Your task to perform on an android device: change the clock style Image 0: 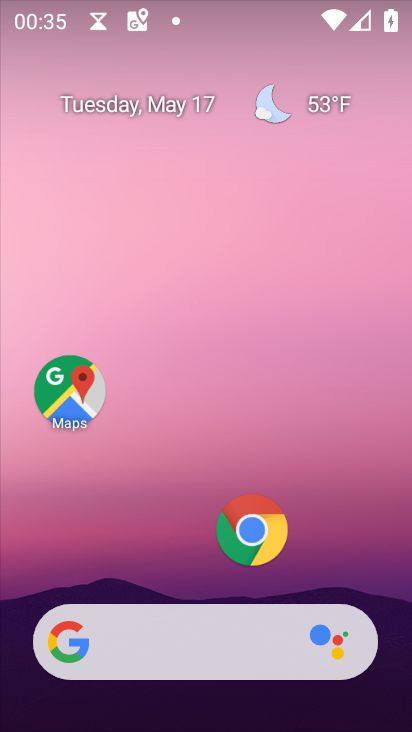
Step 0: click (321, 554)
Your task to perform on an android device: change the clock style Image 1: 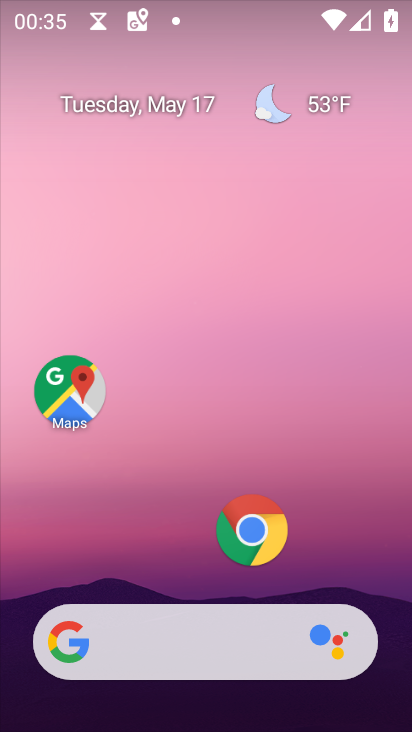
Step 1: drag from (321, 554) to (278, 147)
Your task to perform on an android device: change the clock style Image 2: 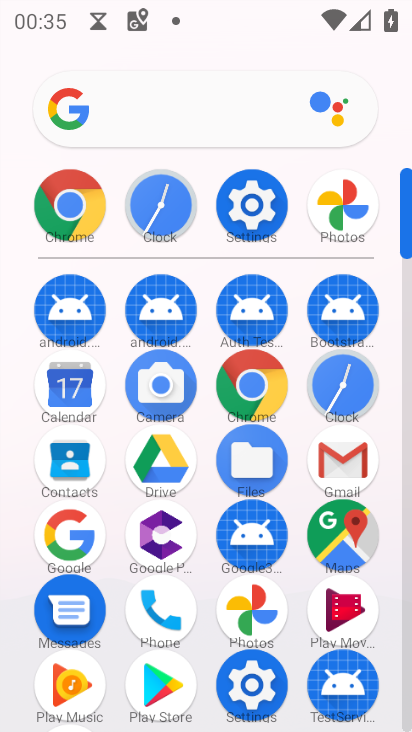
Step 2: click (268, 224)
Your task to perform on an android device: change the clock style Image 3: 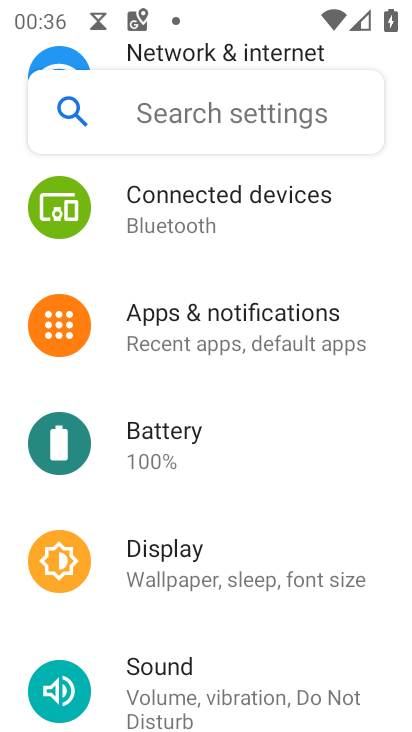
Step 3: click (183, 568)
Your task to perform on an android device: change the clock style Image 4: 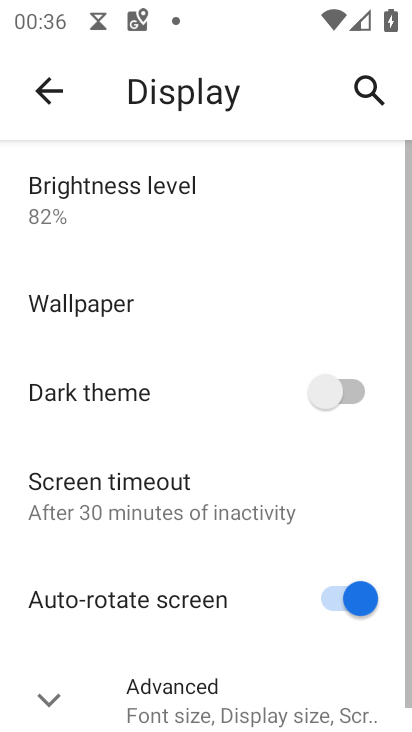
Step 4: drag from (201, 586) to (207, 232)
Your task to perform on an android device: change the clock style Image 5: 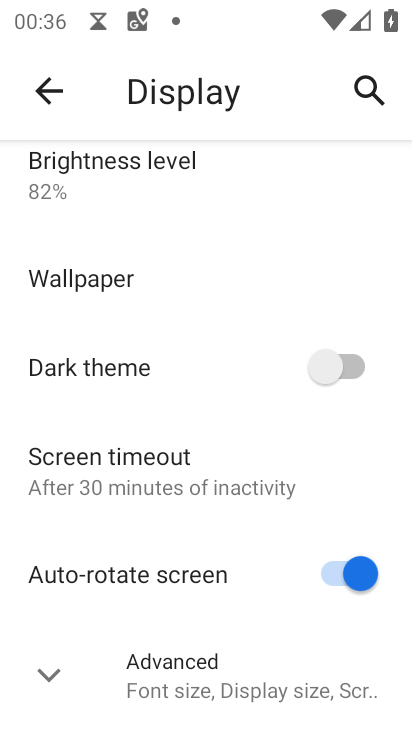
Step 5: click (238, 694)
Your task to perform on an android device: change the clock style Image 6: 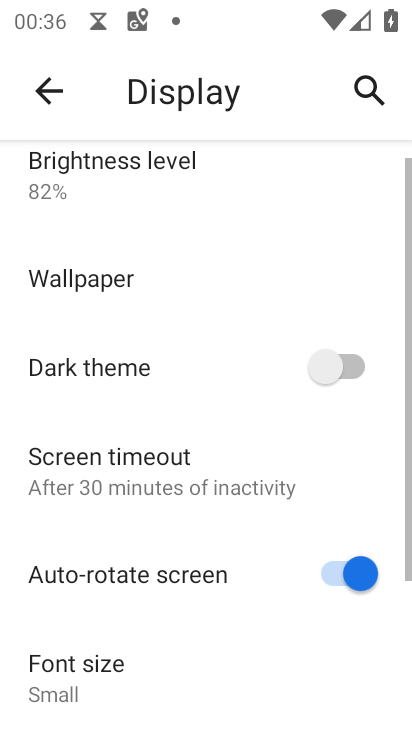
Step 6: drag from (248, 675) to (225, 292)
Your task to perform on an android device: change the clock style Image 7: 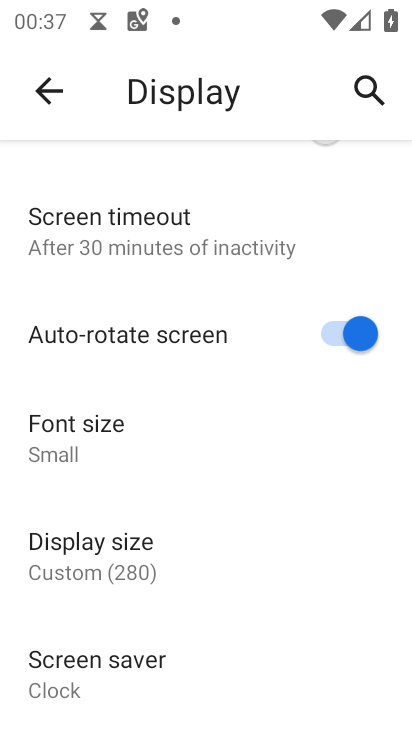
Step 7: drag from (265, 577) to (212, 219)
Your task to perform on an android device: change the clock style Image 8: 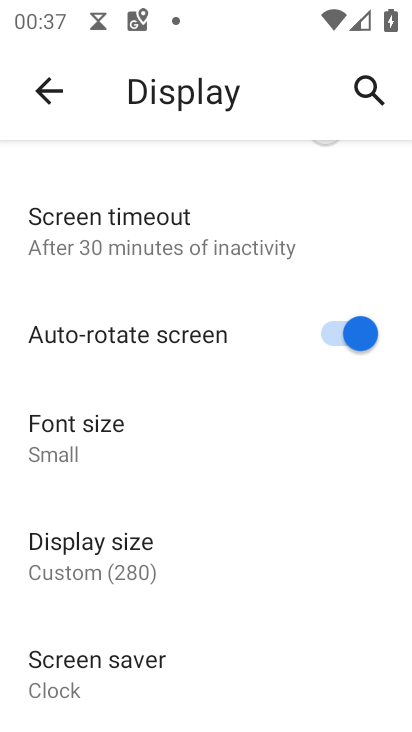
Step 8: click (89, 663)
Your task to perform on an android device: change the clock style Image 9: 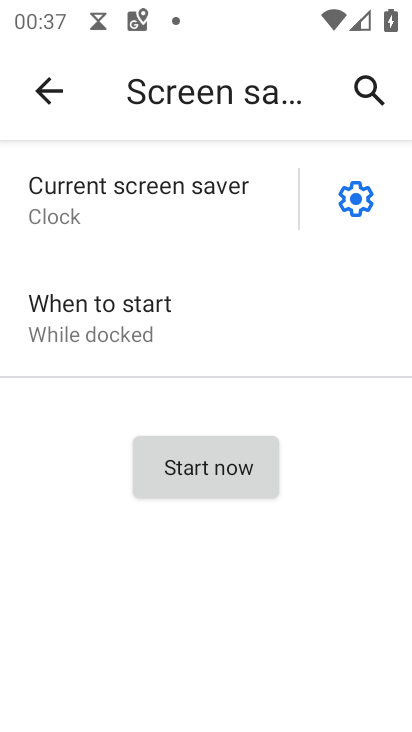
Step 9: click (333, 204)
Your task to perform on an android device: change the clock style Image 10: 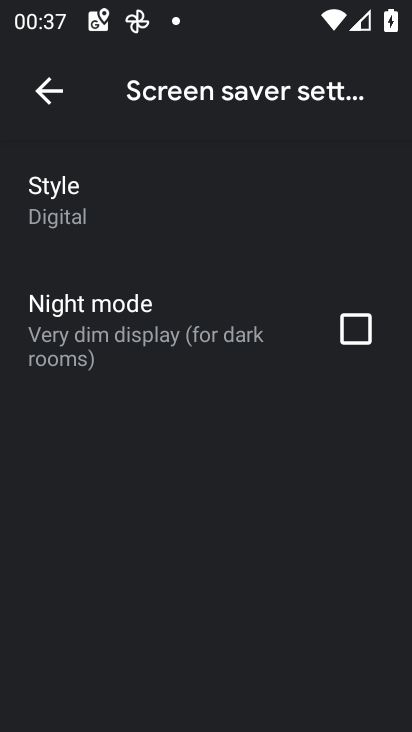
Step 10: click (65, 210)
Your task to perform on an android device: change the clock style Image 11: 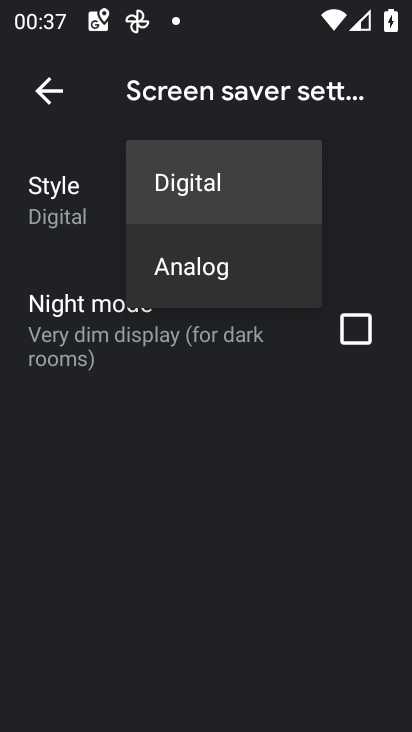
Step 11: click (185, 278)
Your task to perform on an android device: change the clock style Image 12: 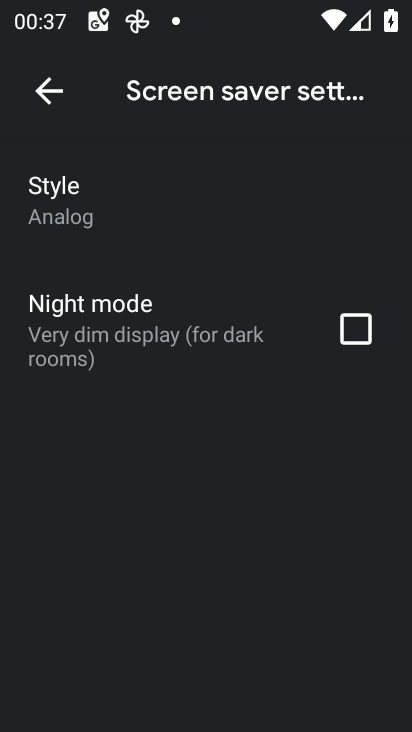
Step 12: task complete